Your task to perform on an android device: turn off data saver in the chrome app Image 0: 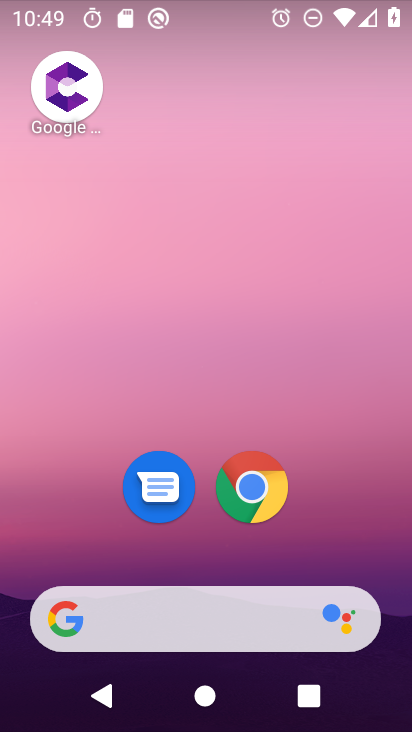
Step 0: click (252, 491)
Your task to perform on an android device: turn off data saver in the chrome app Image 1: 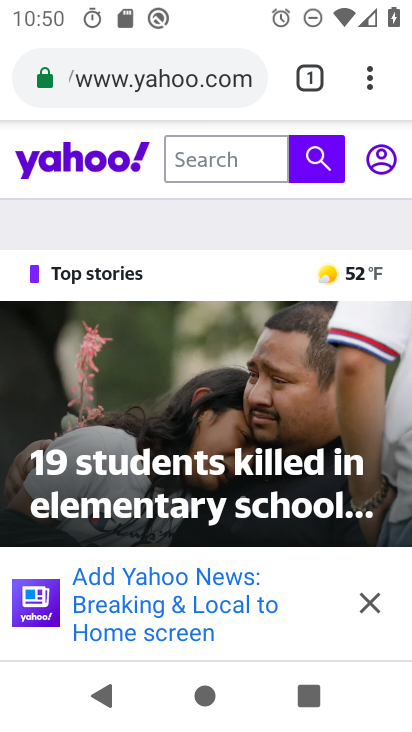
Step 1: click (370, 84)
Your task to perform on an android device: turn off data saver in the chrome app Image 2: 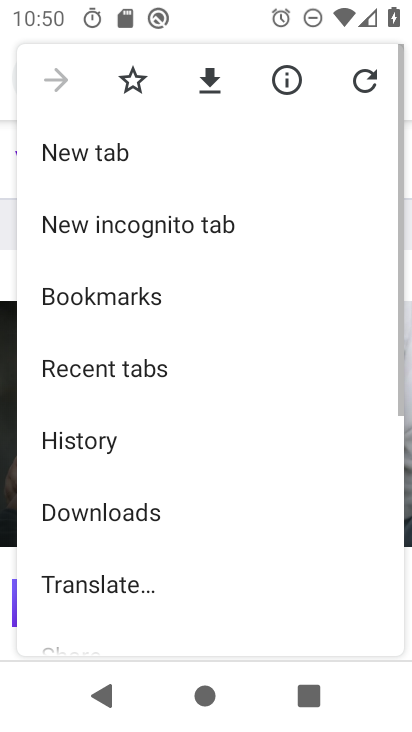
Step 2: drag from (211, 562) to (220, 100)
Your task to perform on an android device: turn off data saver in the chrome app Image 3: 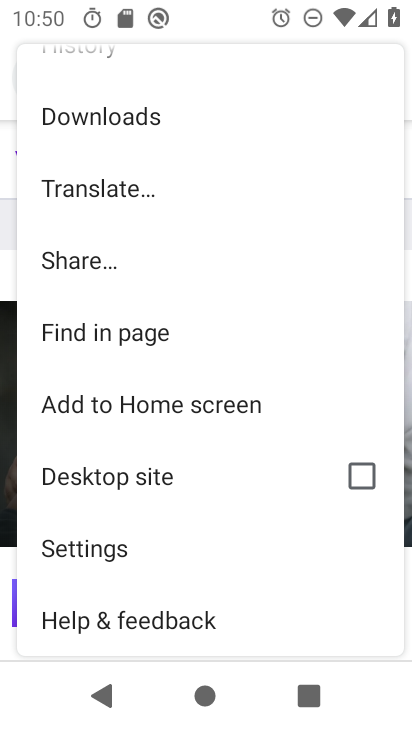
Step 3: click (94, 556)
Your task to perform on an android device: turn off data saver in the chrome app Image 4: 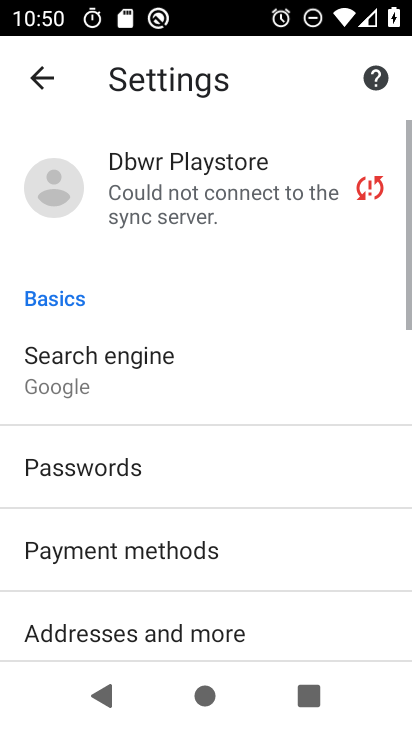
Step 4: drag from (193, 589) to (223, 5)
Your task to perform on an android device: turn off data saver in the chrome app Image 5: 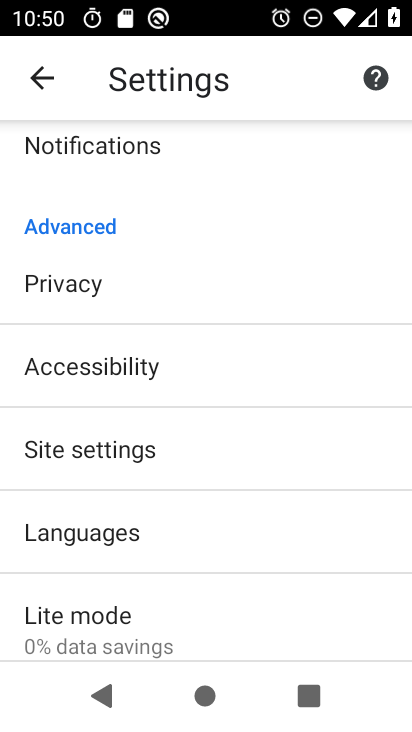
Step 5: click (118, 633)
Your task to perform on an android device: turn off data saver in the chrome app Image 6: 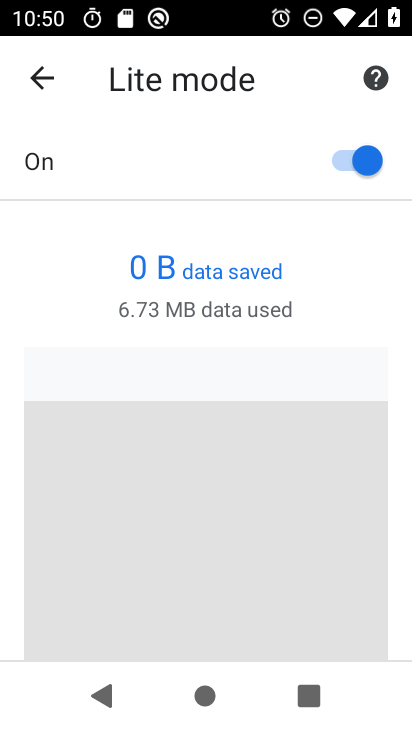
Step 6: click (359, 174)
Your task to perform on an android device: turn off data saver in the chrome app Image 7: 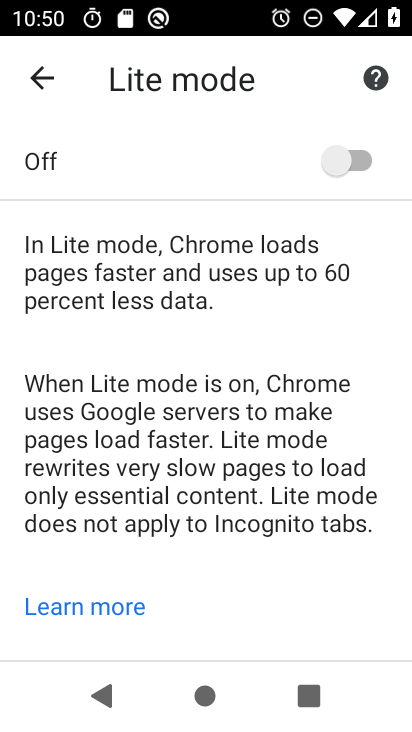
Step 7: task complete